Your task to perform on an android device: What is the news today? Image 0: 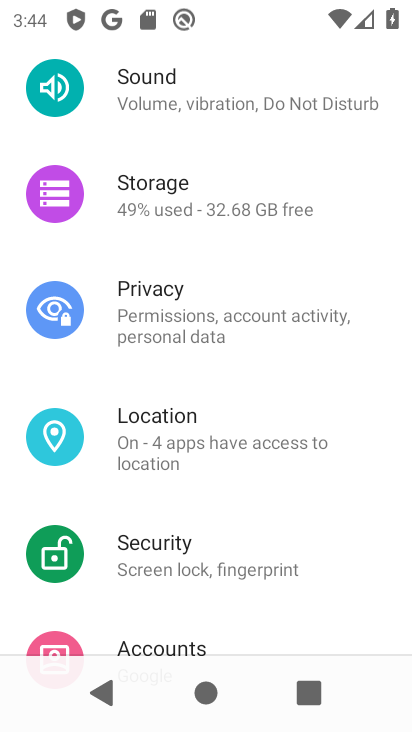
Step 0: press home button
Your task to perform on an android device: What is the news today? Image 1: 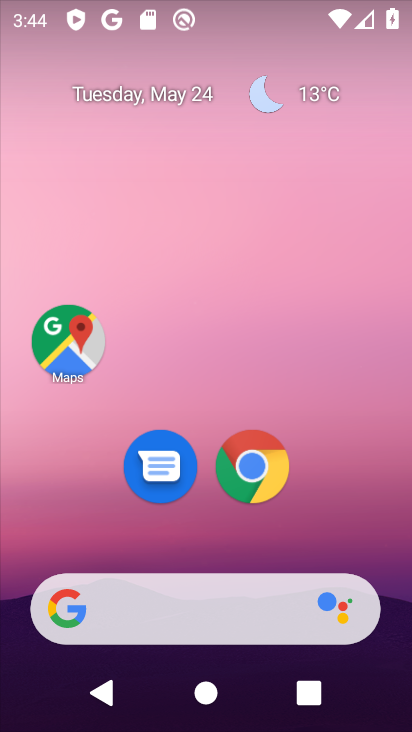
Step 1: click (254, 457)
Your task to perform on an android device: What is the news today? Image 2: 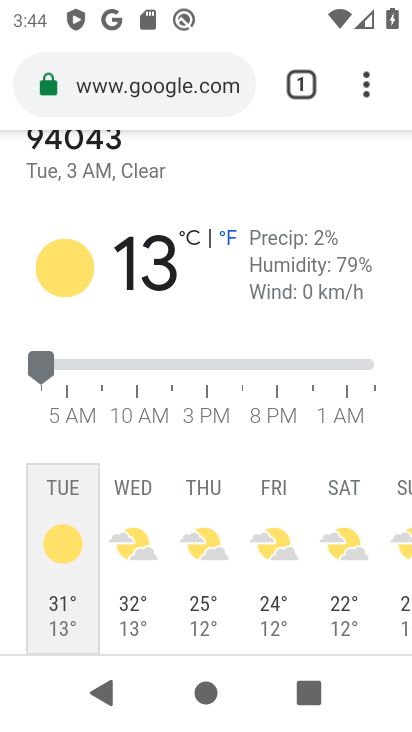
Step 2: click (180, 89)
Your task to perform on an android device: What is the news today? Image 3: 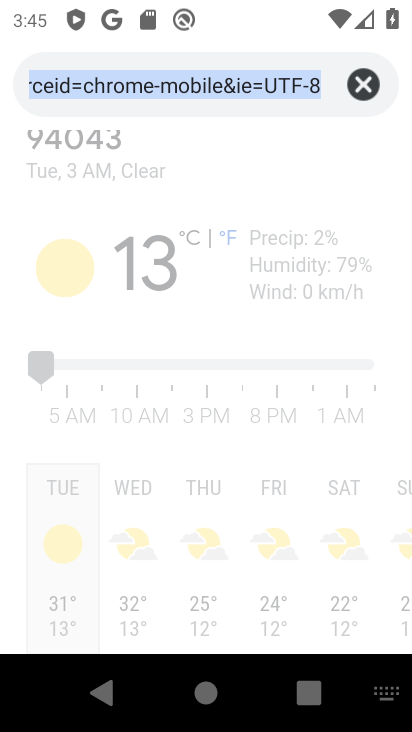
Step 3: type "news"
Your task to perform on an android device: What is the news today? Image 4: 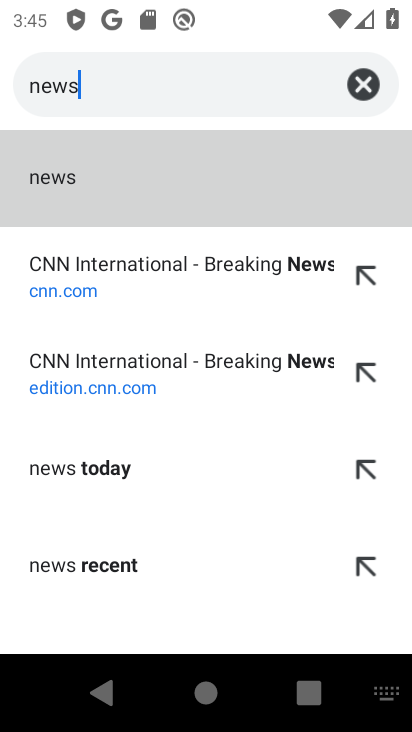
Step 4: click (49, 186)
Your task to perform on an android device: What is the news today? Image 5: 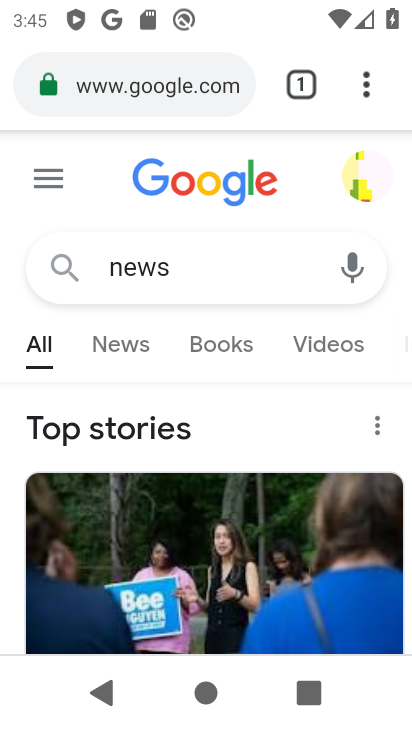
Step 5: click (128, 358)
Your task to perform on an android device: What is the news today? Image 6: 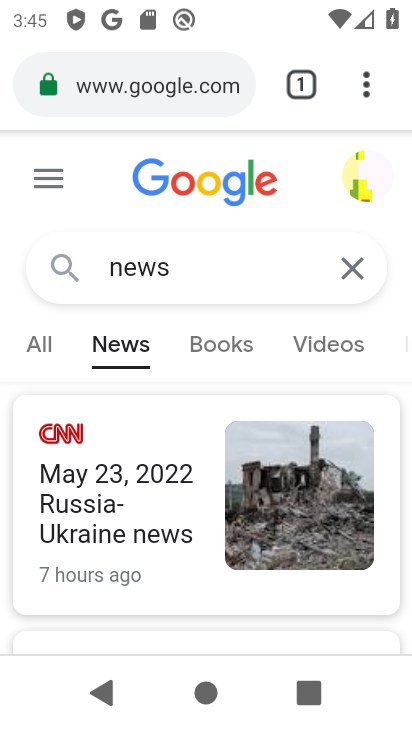
Step 6: task complete